Your task to perform on an android device: Go to accessibility settings Image 0: 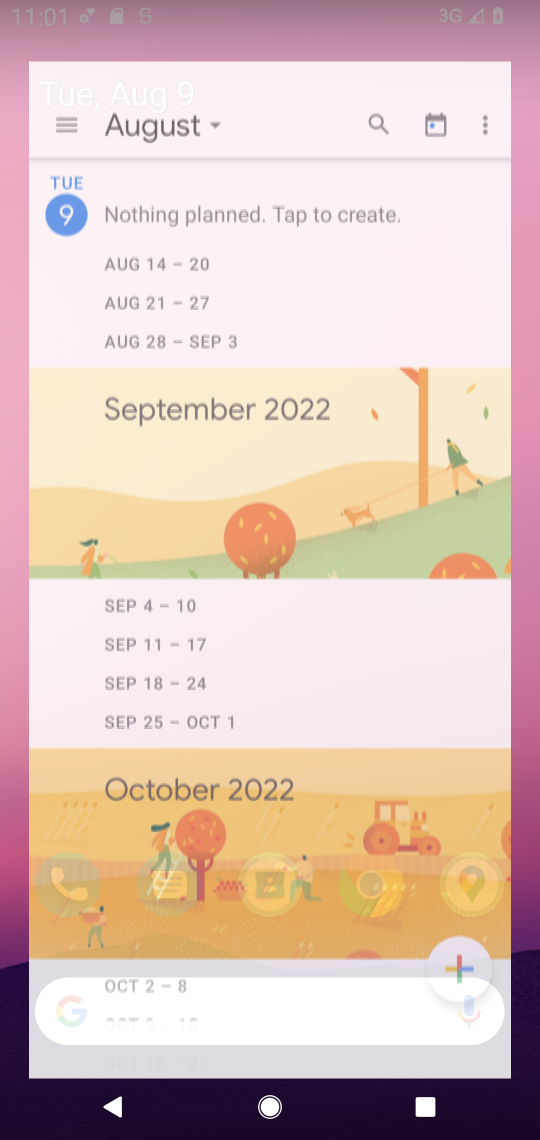
Step 0: press back button
Your task to perform on an android device: Go to accessibility settings Image 1: 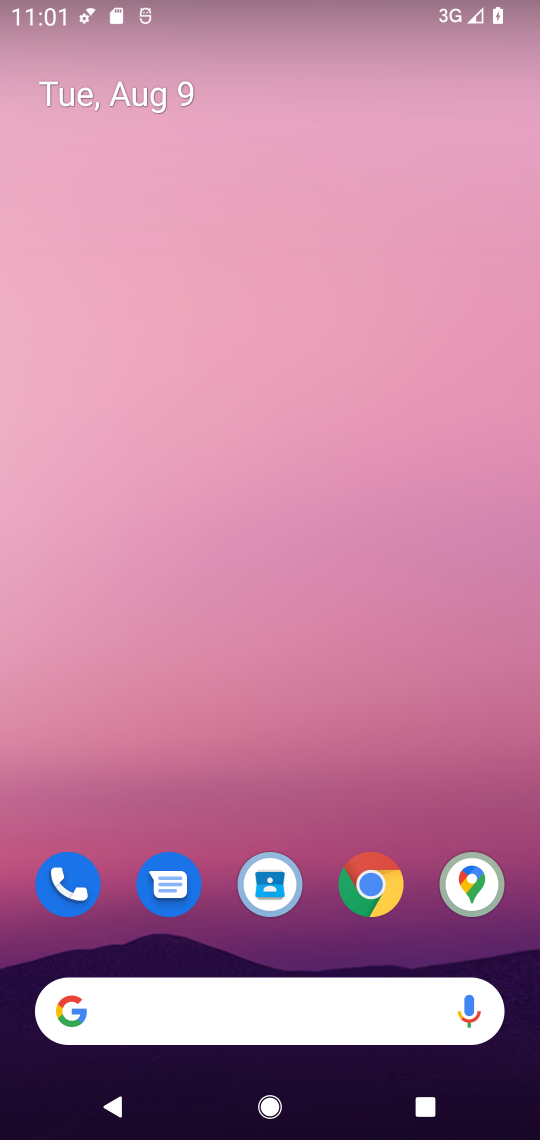
Step 1: drag from (252, 847) to (156, 363)
Your task to perform on an android device: Go to accessibility settings Image 2: 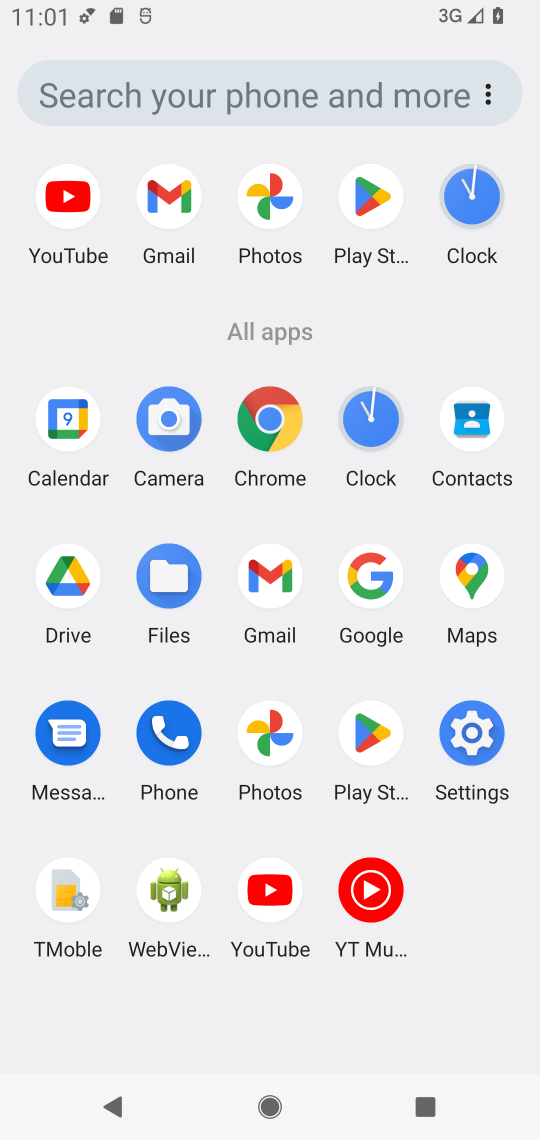
Step 2: click (467, 701)
Your task to perform on an android device: Go to accessibility settings Image 3: 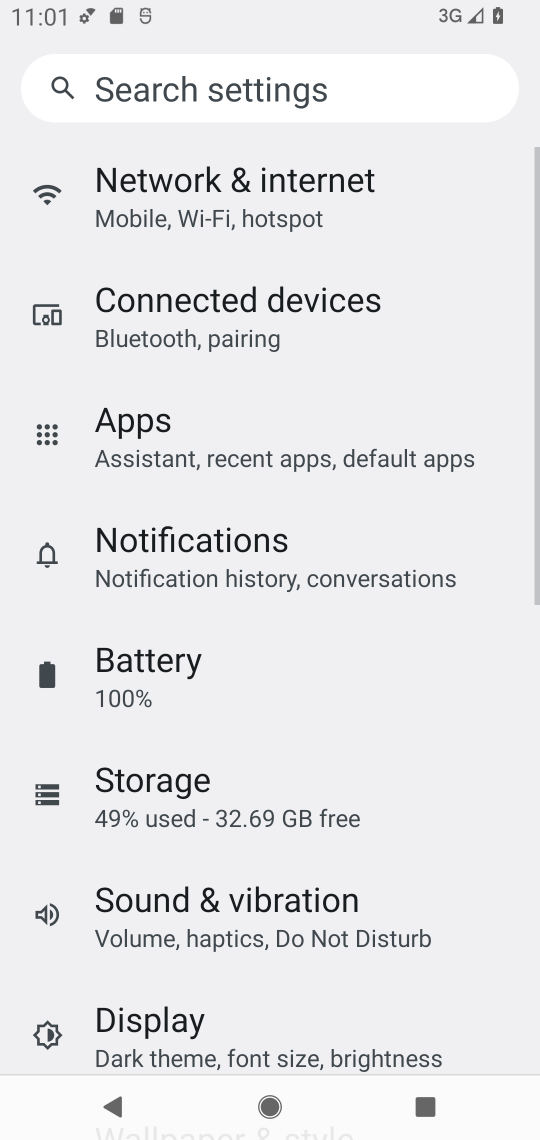
Step 3: drag from (170, 727) to (119, 148)
Your task to perform on an android device: Go to accessibility settings Image 4: 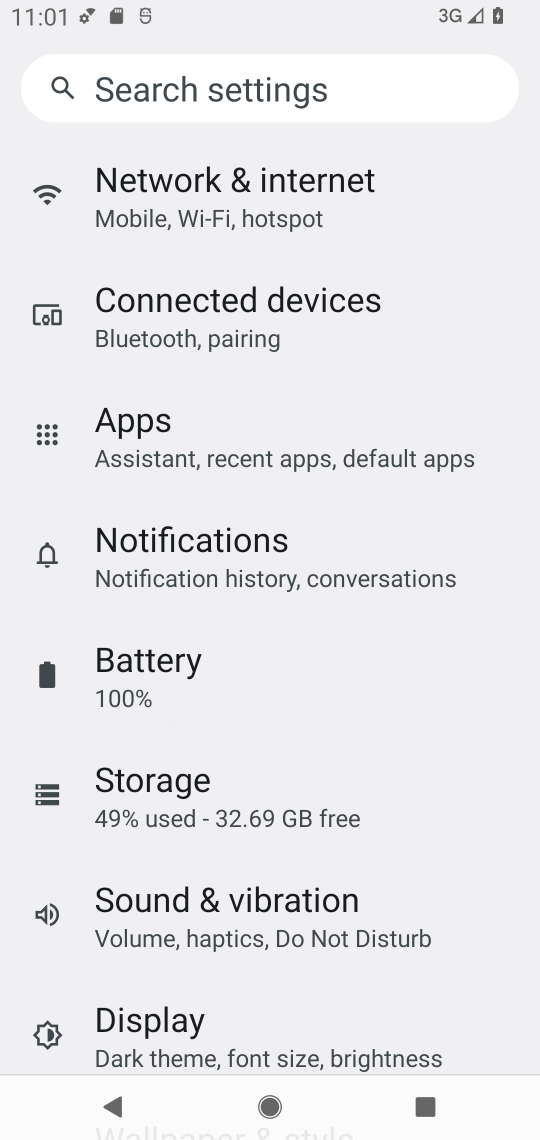
Step 4: drag from (199, 756) to (166, 282)
Your task to perform on an android device: Go to accessibility settings Image 5: 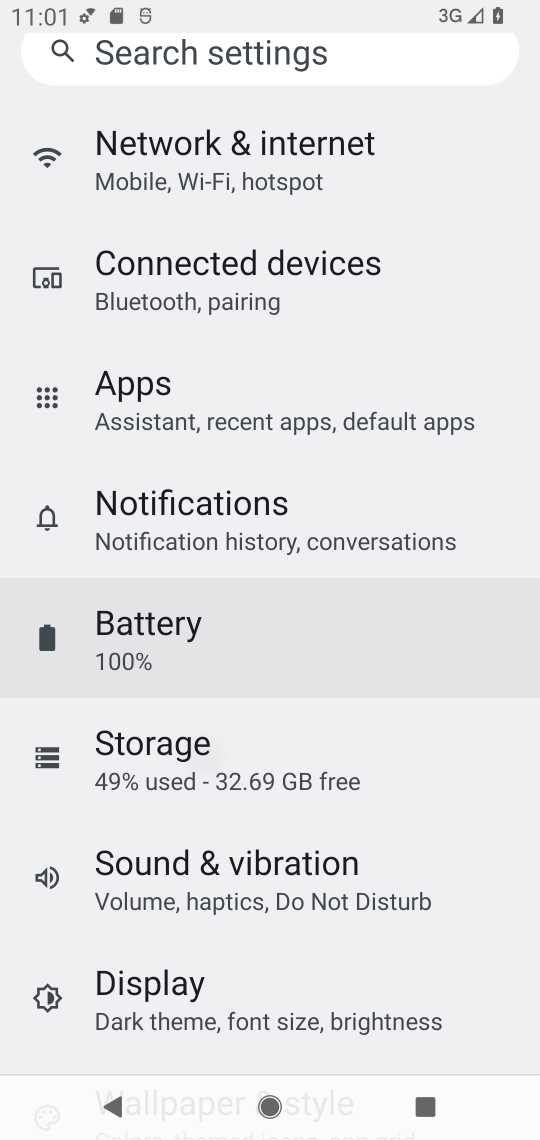
Step 5: drag from (228, 868) to (196, 393)
Your task to perform on an android device: Go to accessibility settings Image 6: 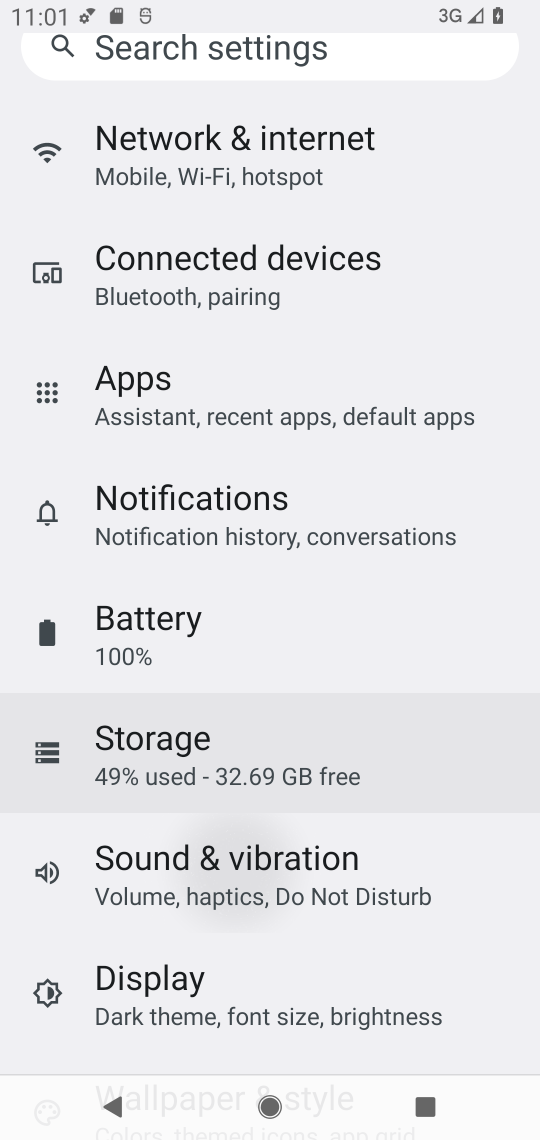
Step 6: drag from (261, 941) to (284, 389)
Your task to perform on an android device: Go to accessibility settings Image 7: 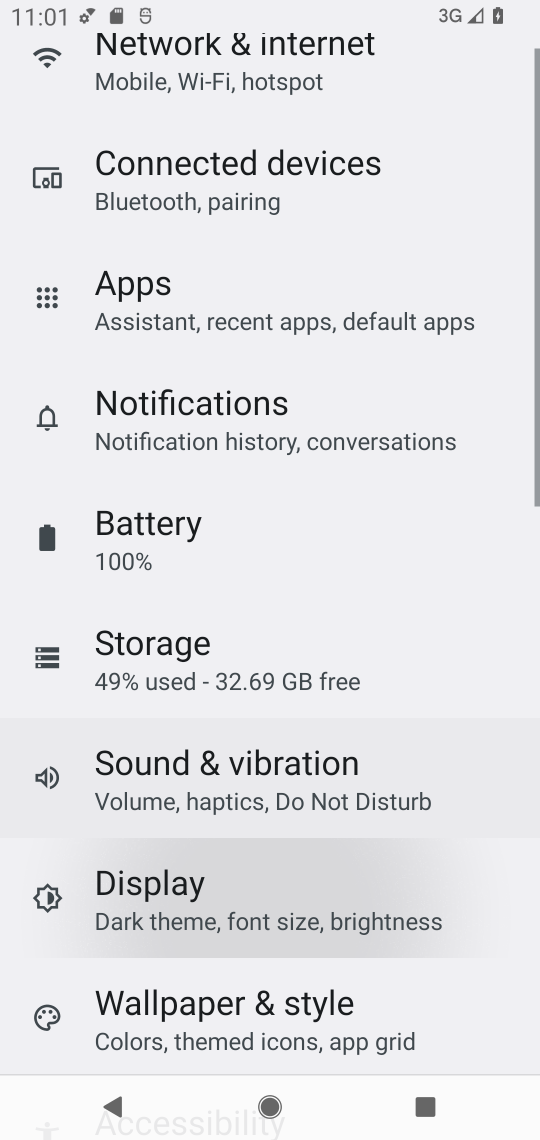
Step 7: drag from (278, 970) to (278, 483)
Your task to perform on an android device: Go to accessibility settings Image 8: 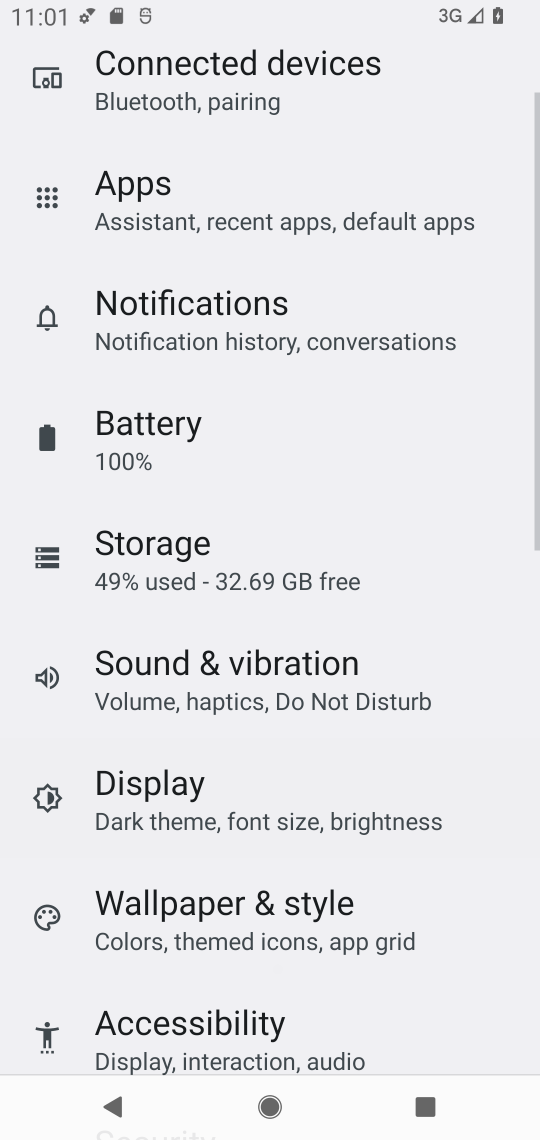
Step 8: drag from (238, 850) to (244, 338)
Your task to perform on an android device: Go to accessibility settings Image 9: 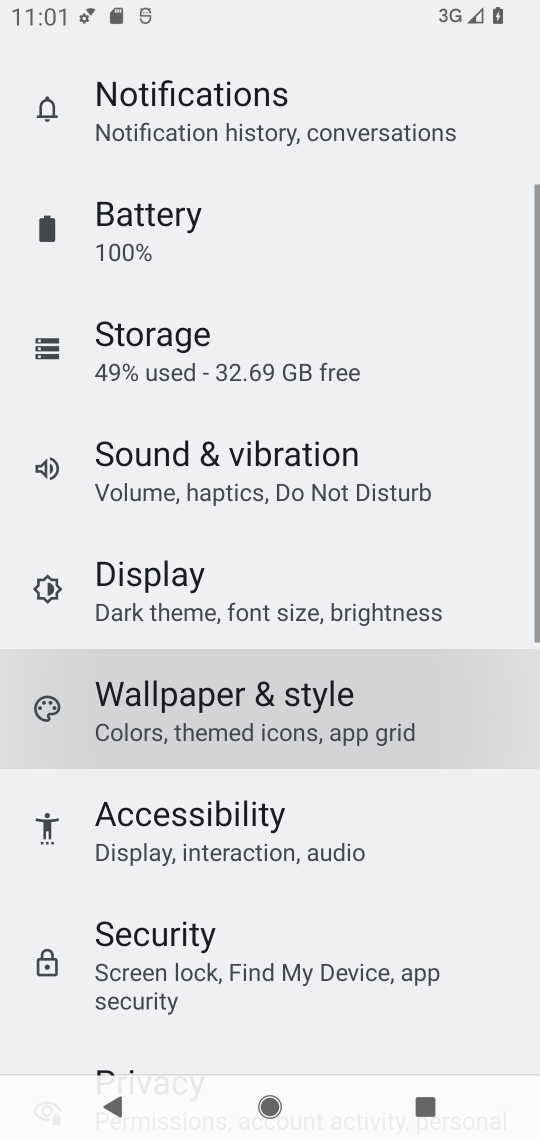
Step 9: drag from (228, 820) to (228, 293)
Your task to perform on an android device: Go to accessibility settings Image 10: 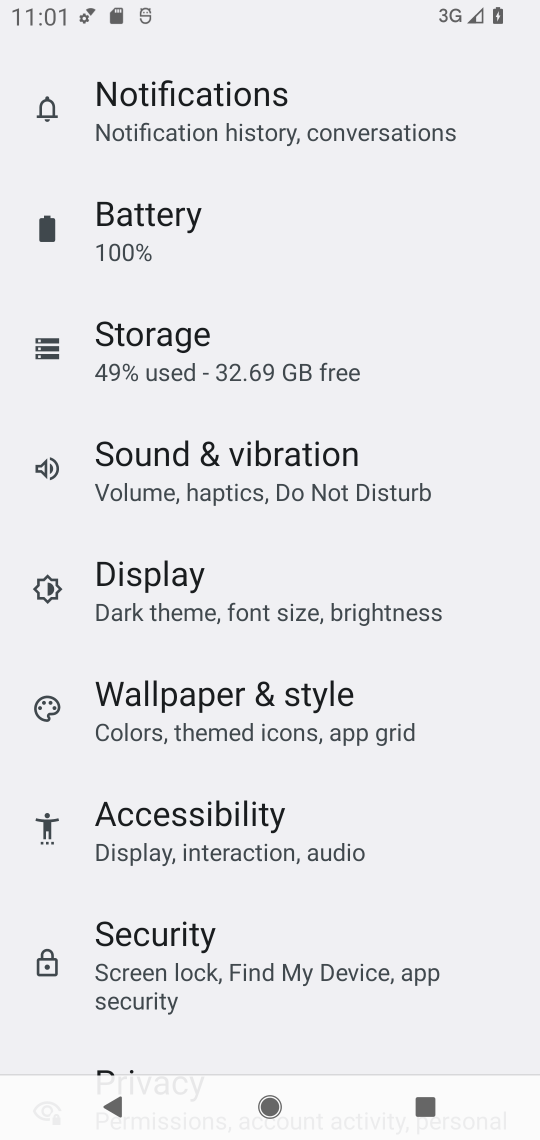
Step 10: click (164, 822)
Your task to perform on an android device: Go to accessibility settings Image 11: 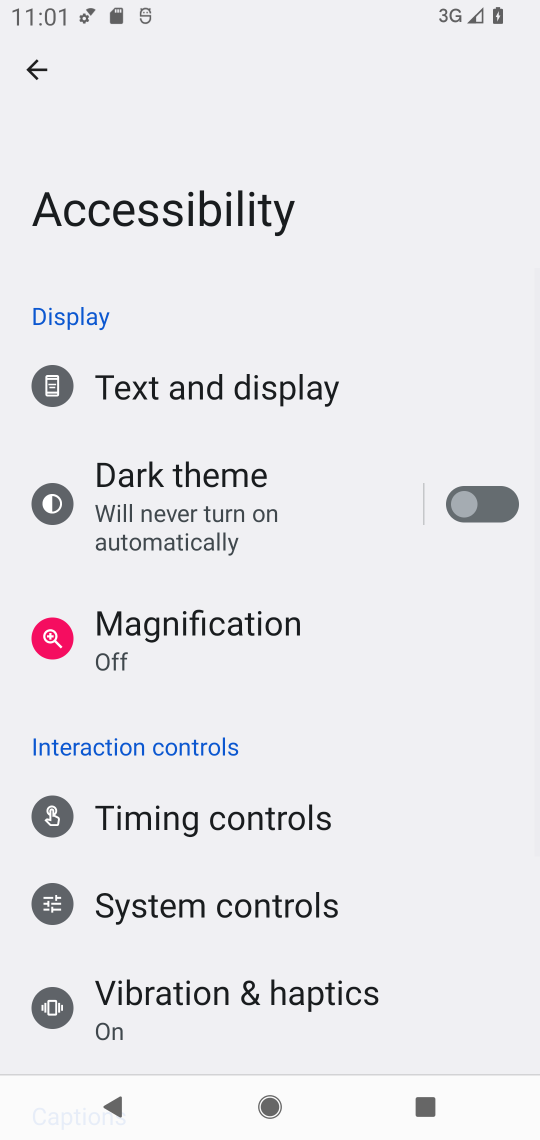
Step 11: task complete